Your task to perform on an android device: Find coffee shops on Maps Image 0: 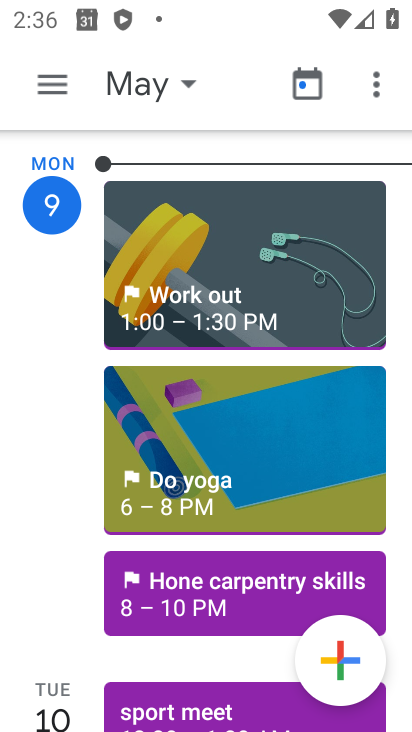
Step 0: press home button
Your task to perform on an android device: Find coffee shops on Maps Image 1: 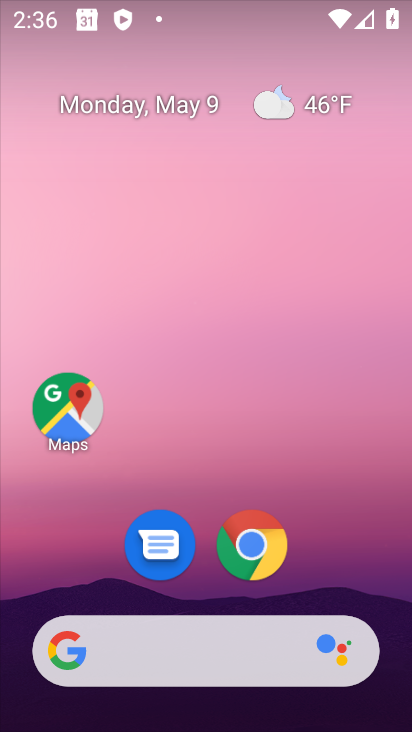
Step 1: click (73, 415)
Your task to perform on an android device: Find coffee shops on Maps Image 2: 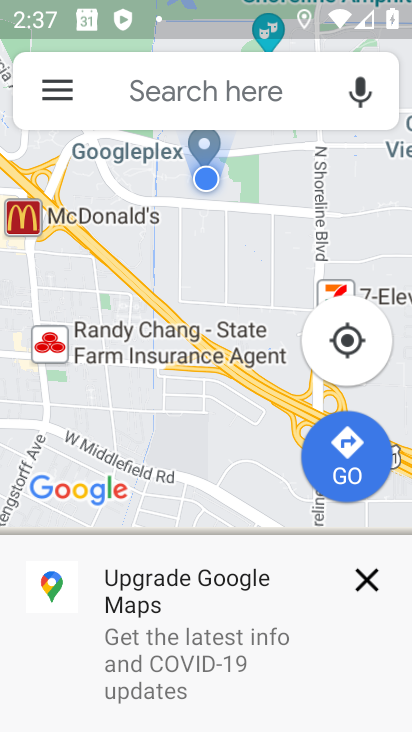
Step 2: click (230, 88)
Your task to perform on an android device: Find coffee shops on Maps Image 3: 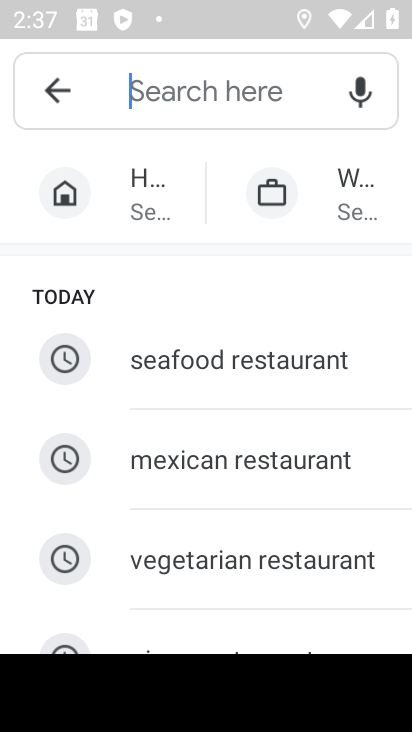
Step 3: type "coffee shops"
Your task to perform on an android device: Find coffee shops on Maps Image 4: 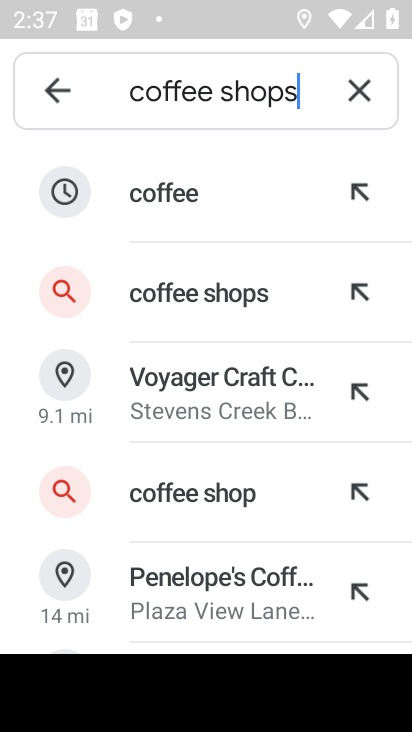
Step 4: click (218, 312)
Your task to perform on an android device: Find coffee shops on Maps Image 5: 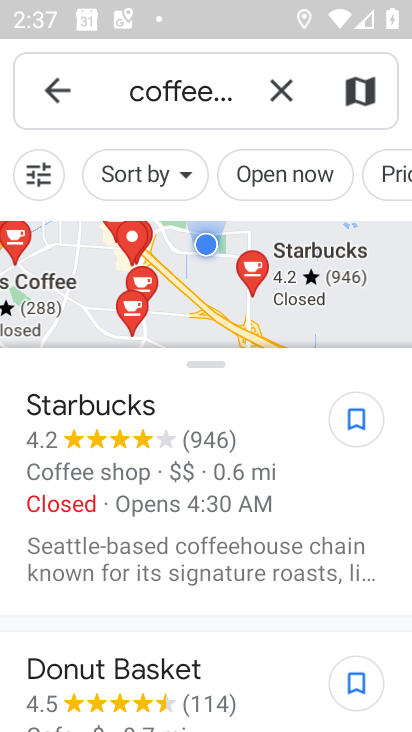
Step 5: task complete